Your task to perform on an android device: toggle pop-ups in chrome Image 0: 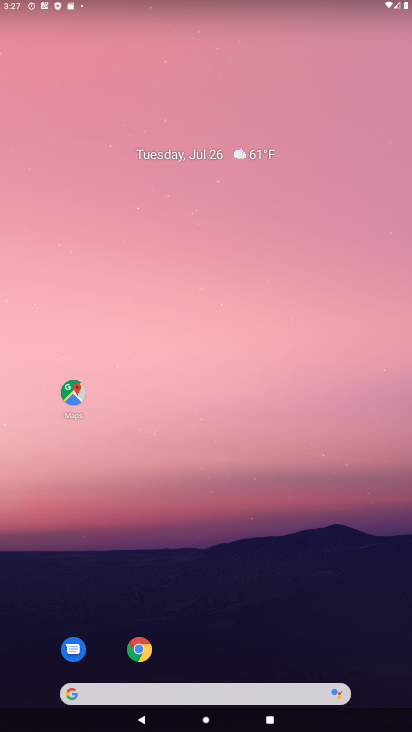
Step 0: click (140, 647)
Your task to perform on an android device: toggle pop-ups in chrome Image 1: 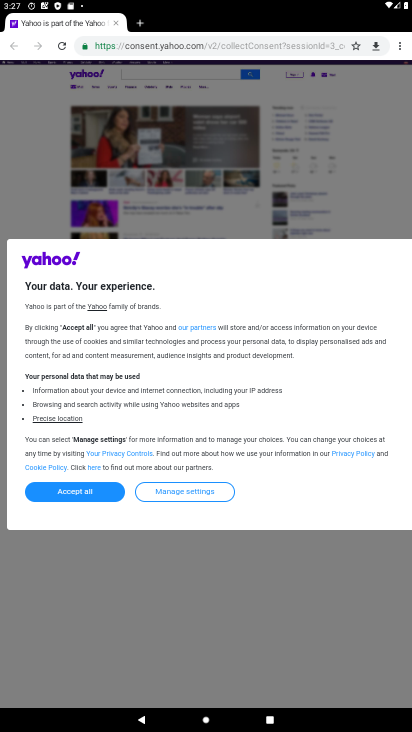
Step 1: press home button
Your task to perform on an android device: toggle pop-ups in chrome Image 2: 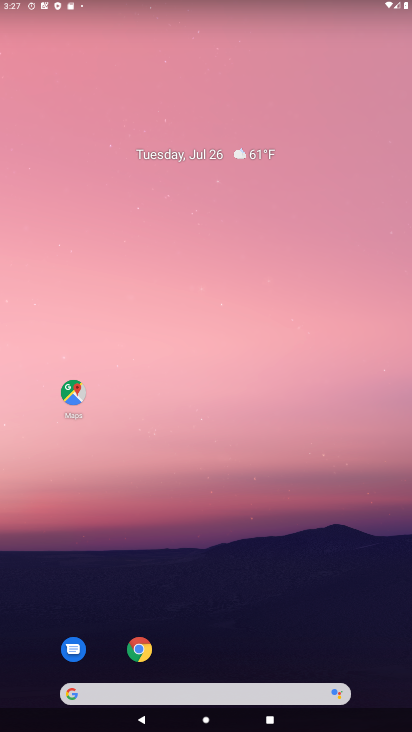
Step 2: click (138, 655)
Your task to perform on an android device: toggle pop-ups in chrome Image 3: 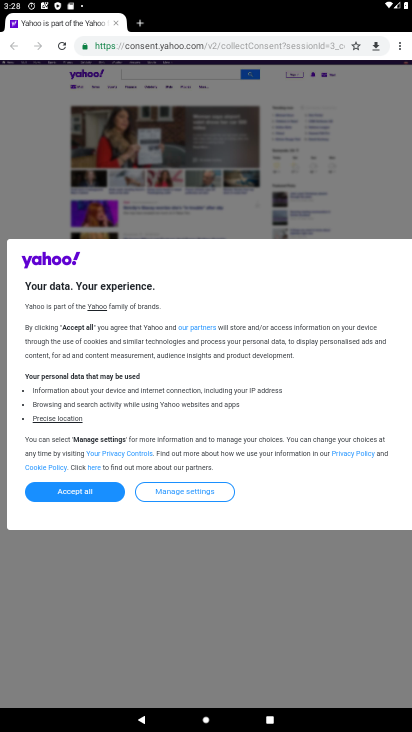
Step 3: click (278, 136)
Your task to perform on an android device: toggle pop-ups in chrome Image 4: 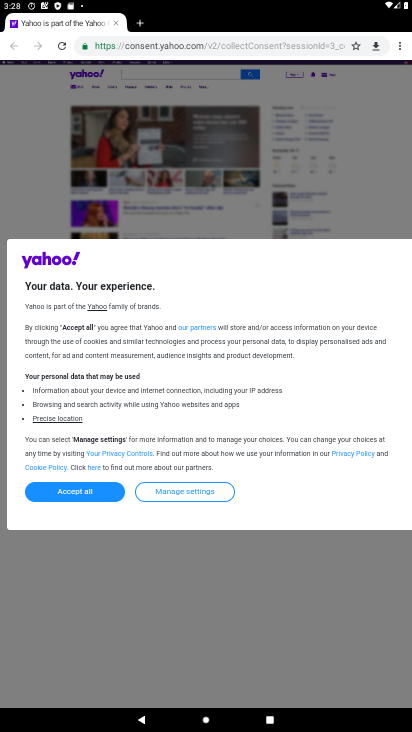
Step 4: click (402, 48)
Your task to perform on an android device: toggle pop-ups in chrome Image 5: 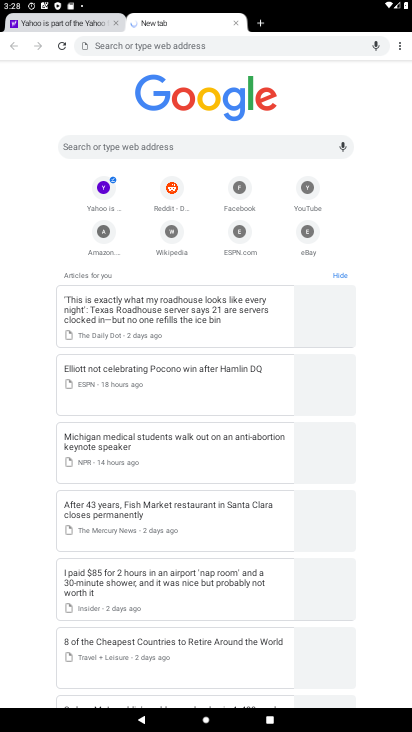
Step 5: click (398, 46)
Your task to perform on an android device: toggle pop-ups in chrome Image 6: 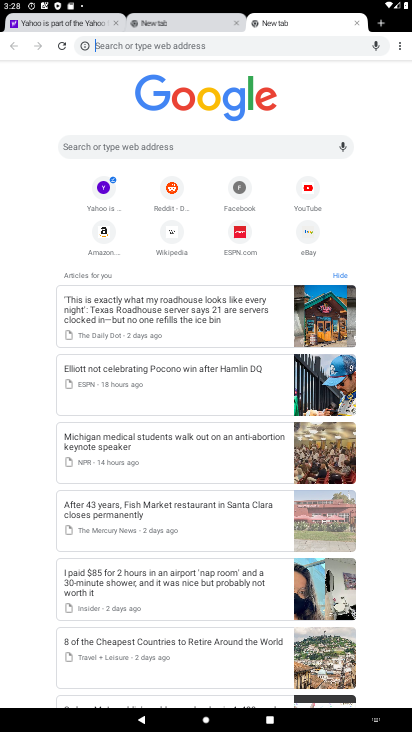
Step 6: click (398, 47)
Your task to perform on an android device: toggle pop-ups in chrome Image 7: 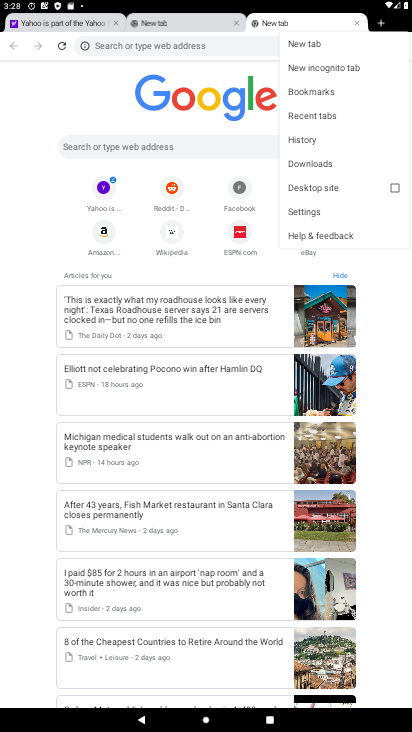
Step 7: task complete